Your task to perform on an android device: read, delete, or share a saved page in the chrome app Image 0: 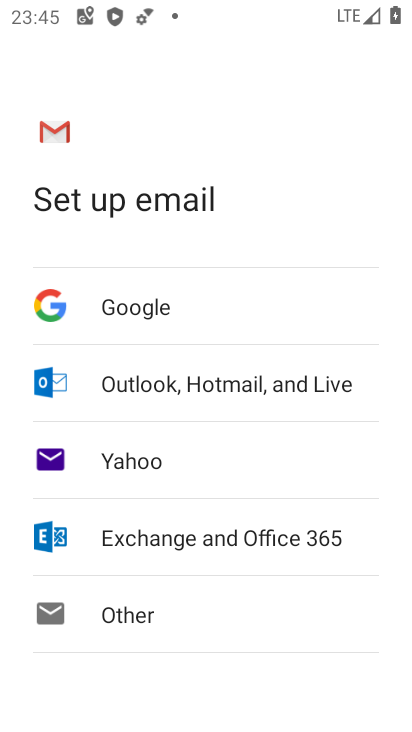
Step 0: press home button
Your task to perform on an android device: read, delete, or share a saved page in the chrome app Image 1: 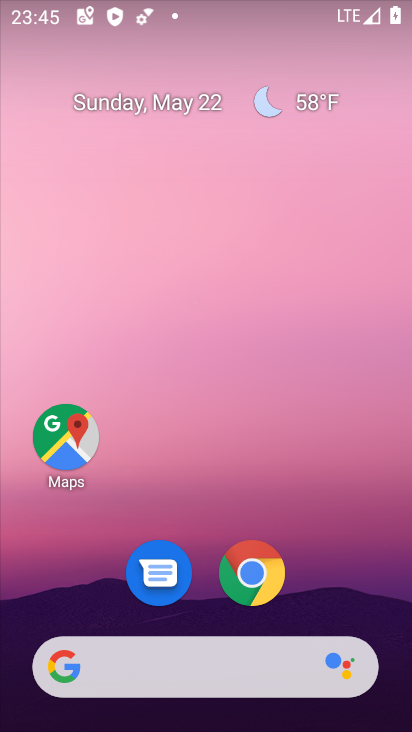
Step 1: click (249, 570)
Your task to perform on an android device: read, delete, or share a saved page in the chrome app Image 2: 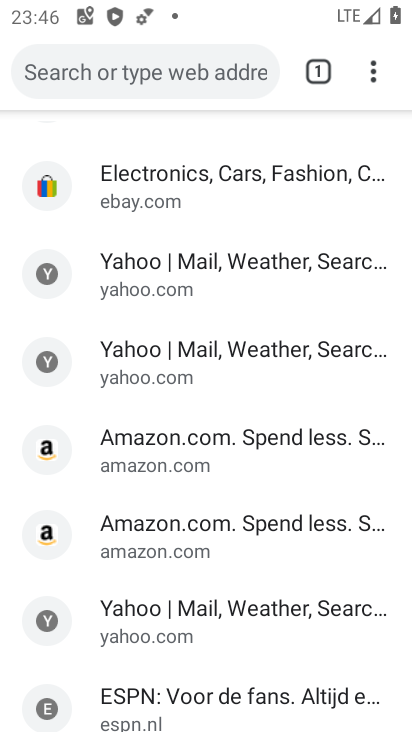
Step 2: click (363, 68)
Your task to perform on an android device: read, delete, or share a saved page in the chrome app Image 3: 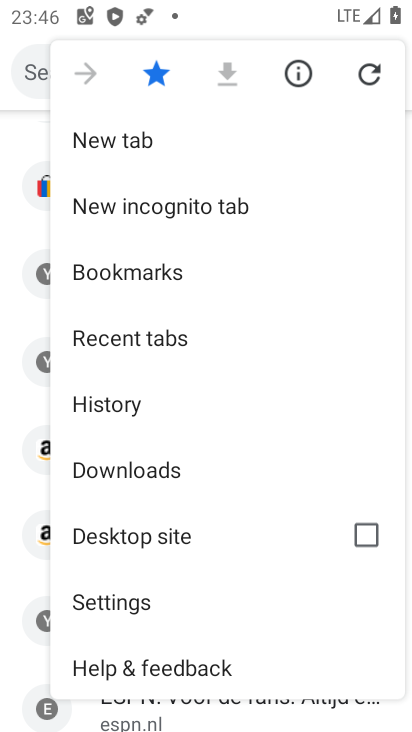
Step 3: click (113, 475)
Your task to perform on an android device: read, delete, or share a saved page in the chrome app Image 4: 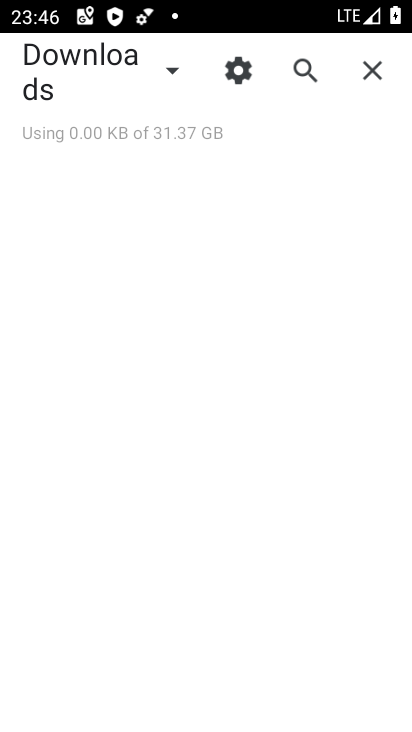
Step 4: task complete